Your task to perform on an android device: Do I have any events this weekend? Image 0: 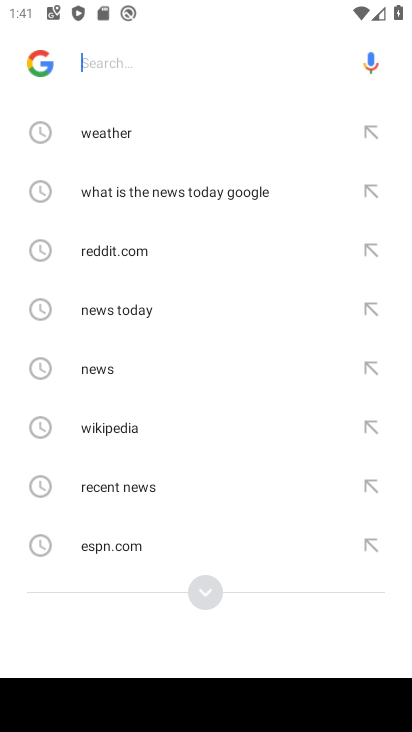
Step 0: press home button
Your task to perform on an android device: Do I have any events this weekend? Image 1: 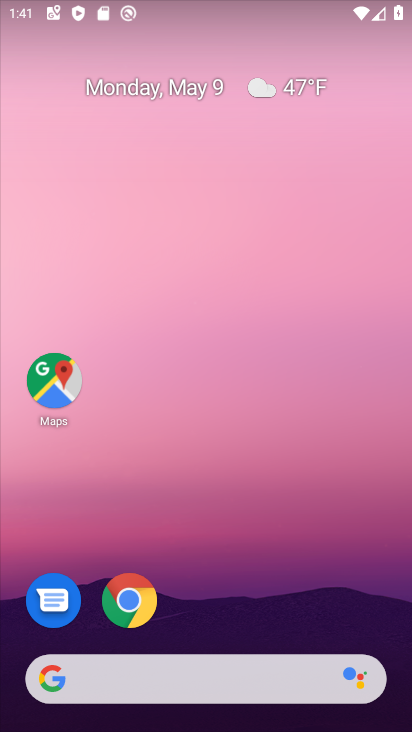
Step 1: click (167, 91)
Your task to perform on an android device: Do I have any events this weekend? Image 2: 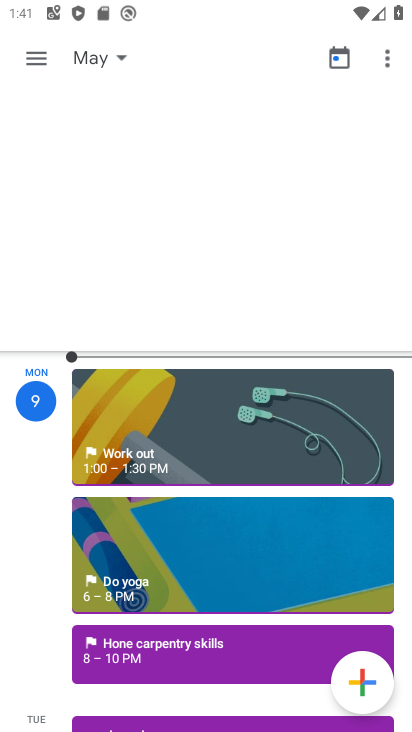
Step 2: click (91, 73)
Your task to perform on an android device: Do I have any events this weekend? Image 3: 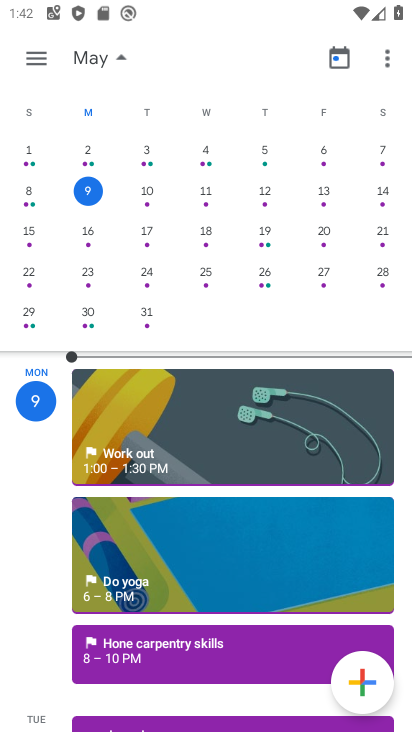
Step 3: click (374, 194)
Your task to perform on an android device: Do I have any events this weekend? Image 4: 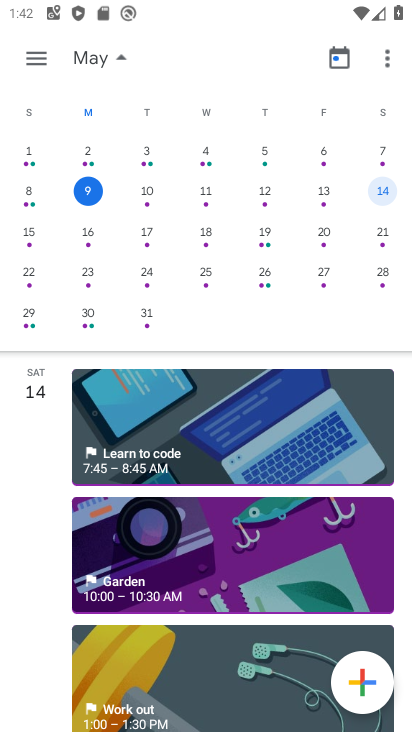
Step 4: task complete